Your task to perform on an android device: change timer sound Image 0: 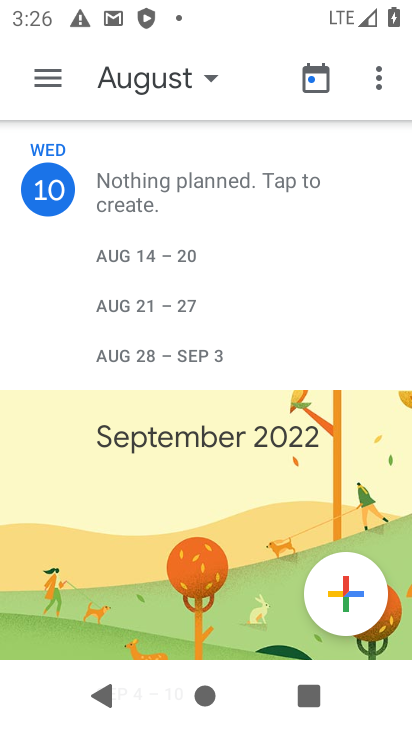
Step 0: press home button
Your task to perform on an android device: change timer sound Image 1: 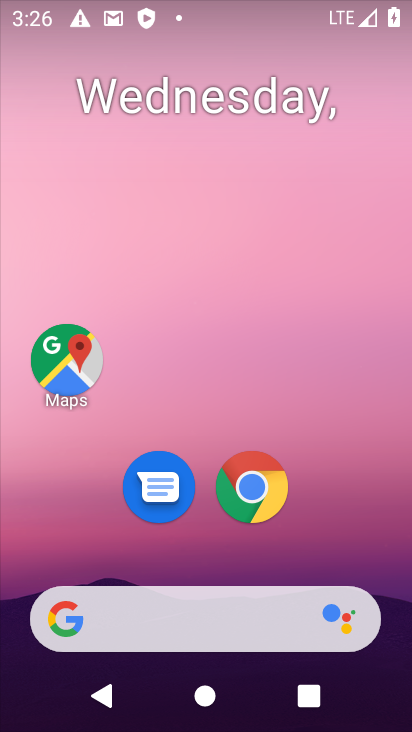
Step 1: drag from (359, 537) to (332, 53)
Your task to perform on an android device: change timer sound Image 2: 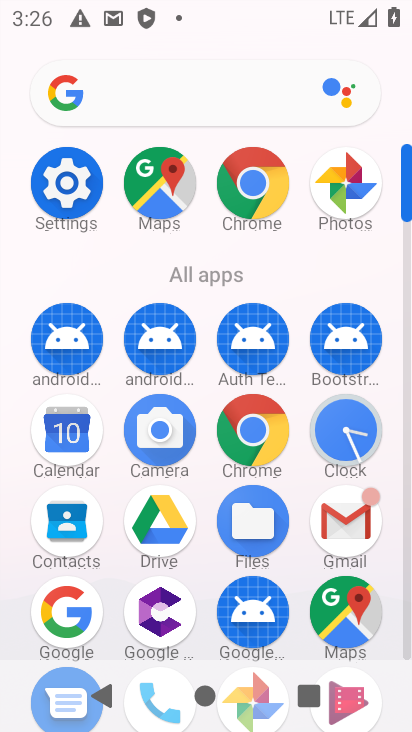
Step 2: click (340, 427)
Your task to perform on an android device: change timer sound Image 3: 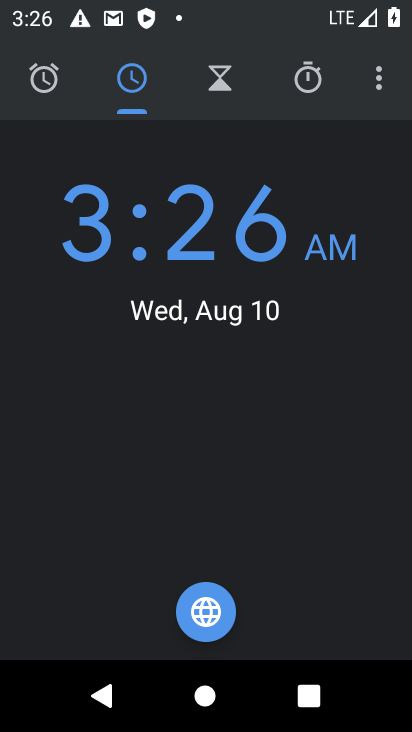
Step 3: click (228, 94)
Your task to perform on an android device: change timer sound Image 4: 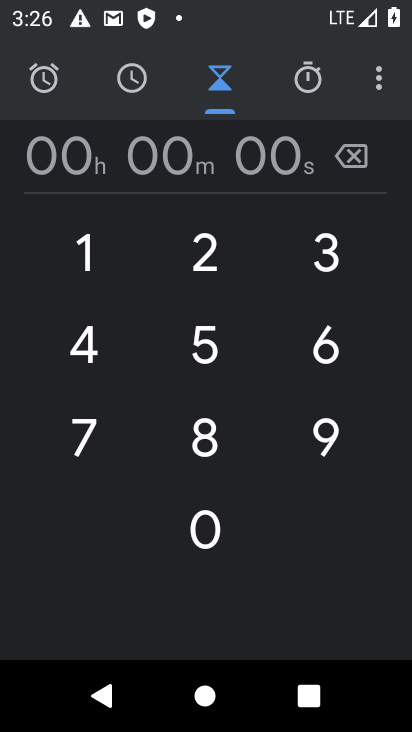
Step 4: click (378, 73)
Your task to perform on an android device: change timer sound Image 5: 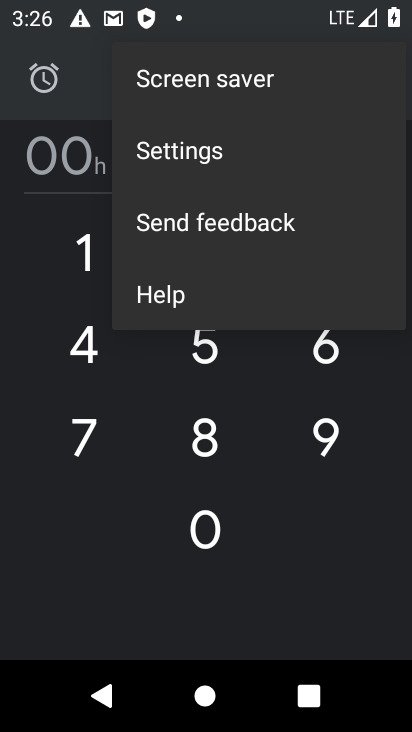
Step 5: click (191, 166)
Your task to perform on an android device: change timer sound Image 6: 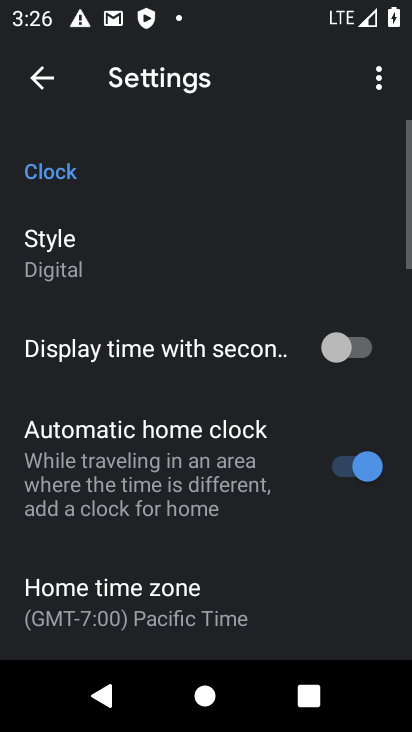
Step 6: drag from (224, 563) to (246, 118)
Your task to perform on an android device: change timer sound Image 7: 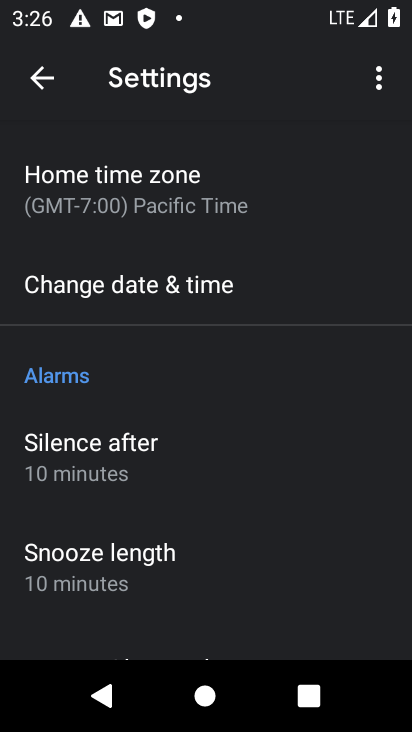
Step 7: drag from (241, 473) to (276, 139)
Your task to perform on an android device: change timer sound Image 8: 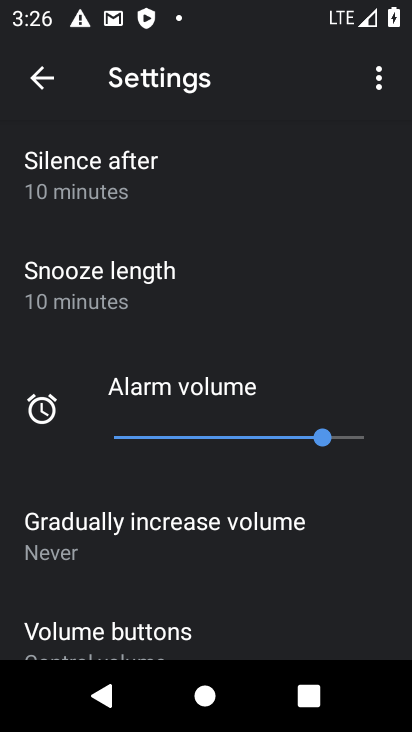
Step 8: drag from (302, 636) to (277, 178)
Your task to perform on an android device: change timer sound Image 9: 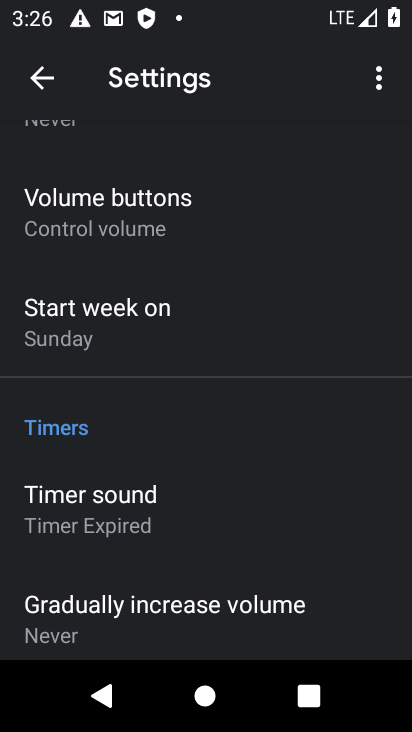
Step 9: click (101, 528)
Your task to perform on an android device: change timer sound Image 10: 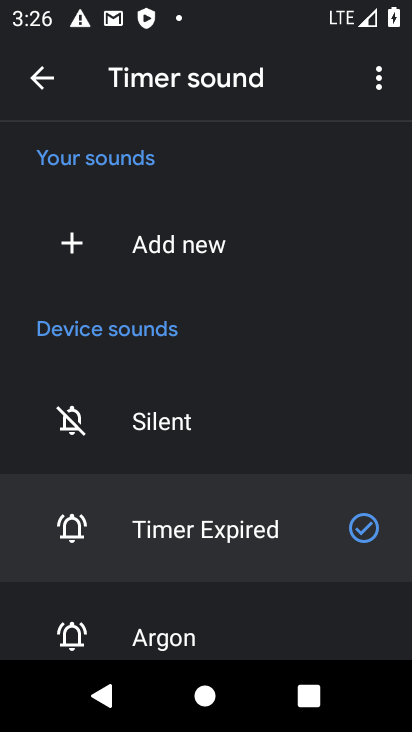
Step 10: click (184, 635)
Your task to perform on an android device: change timer sound Image 11: 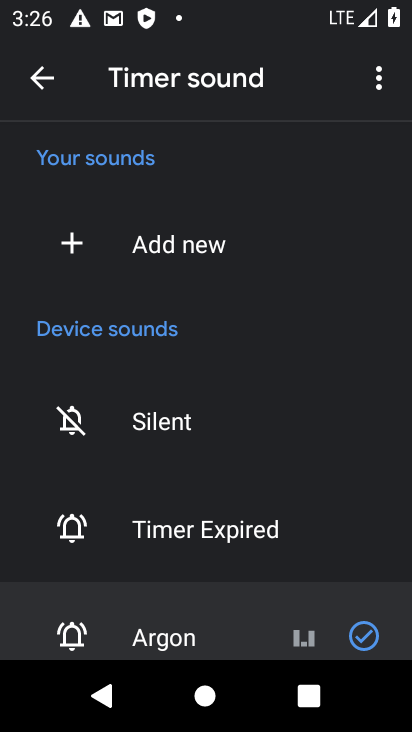
Step 11: task complete